Your task to perform on an android device: turn off notifications in google photos Image 0: 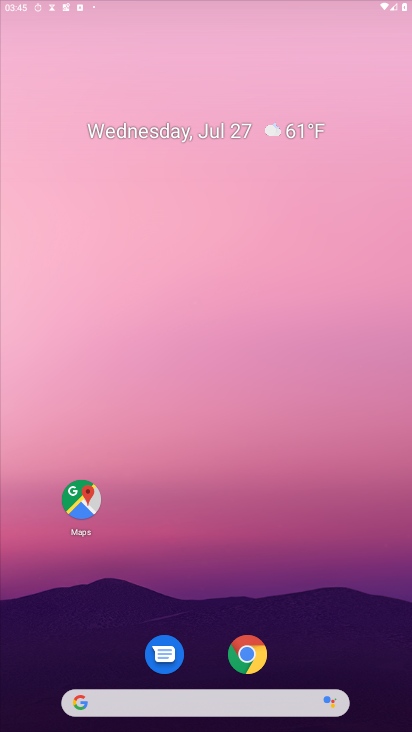
Step 0: drag from (265, 705) to (282, 183)
Your task to perform on an android device: turn off notifications in google photos Image 1: 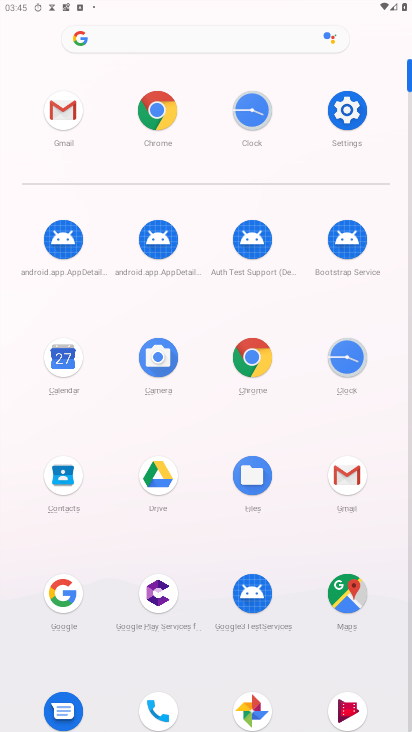
Step 1: drag from (273, 622) to (261, 262)
Your task to perform on an android device: turn off notifications in google photos Image 2: 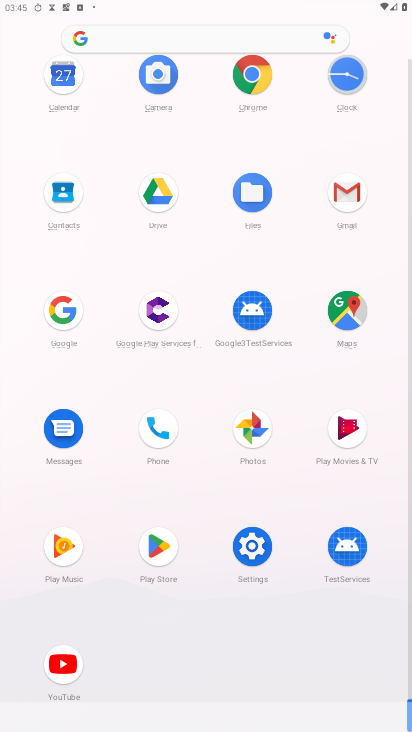
Step 2: click (252, 436)
Your task to perform on an android device: turn off notifications in google photos Image 3: 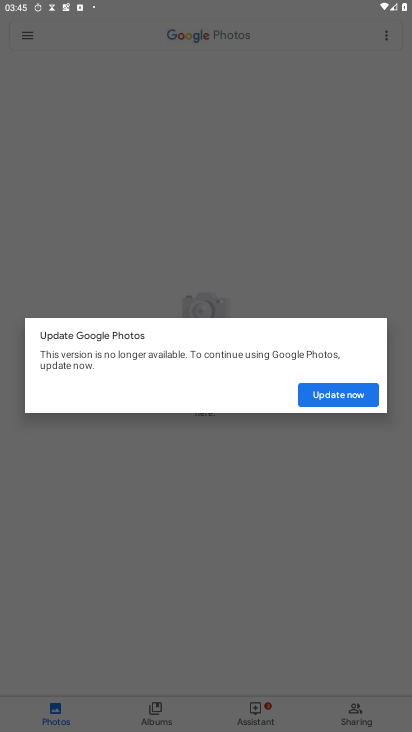
Step 3: click (347, 392)
Your task to perform on an android device: turn off notifications in google photos Image 4: 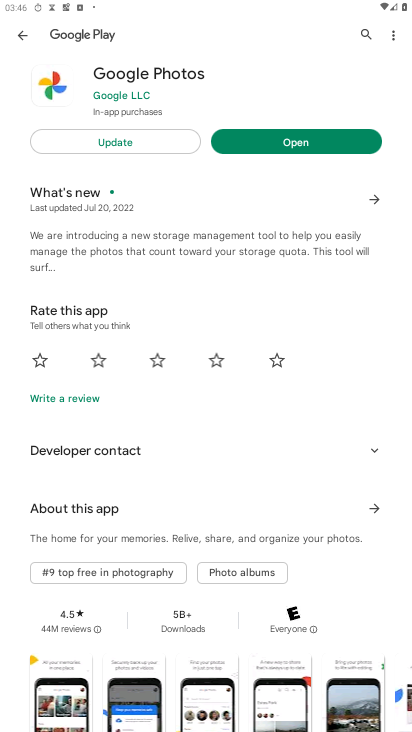
Step 4: click (145, 145)
Your task to perform on an android device: turn off notifications in google photos Image 5: 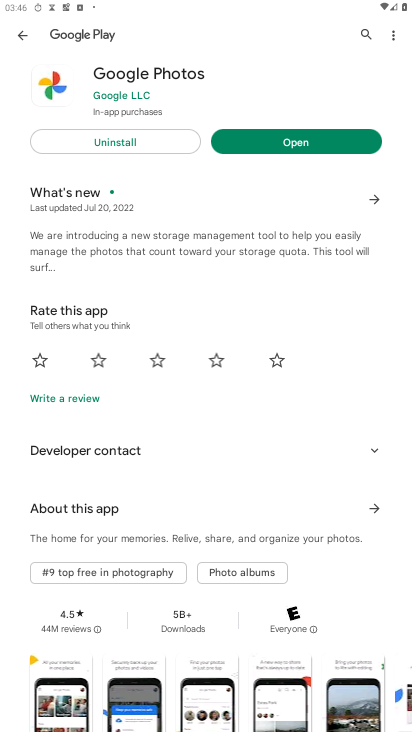
Step 5: click (346, 140)
Your task to perform on an android device: turn off notifications in google photos Image 6: 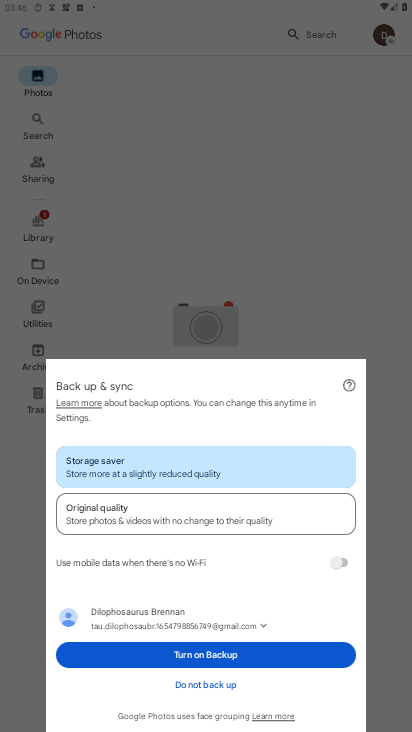
Step 6: click (175, 651)
Your task to perform on an android device: turn off notifications in google photos Image 7: 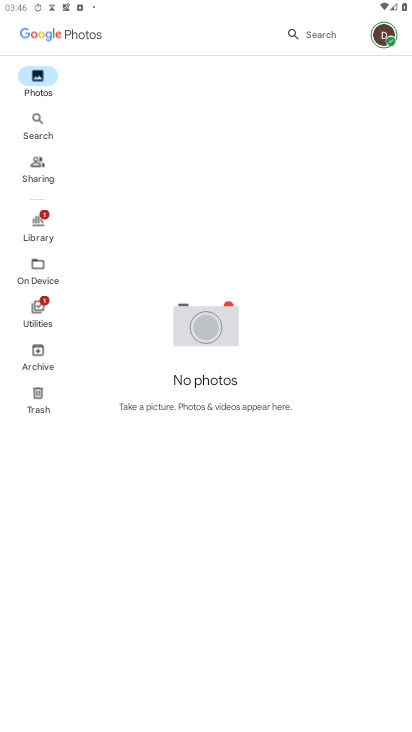
Step 7: click (384, 38)
Your task to perform on an android device: turn off notifications in google photos Image 8: 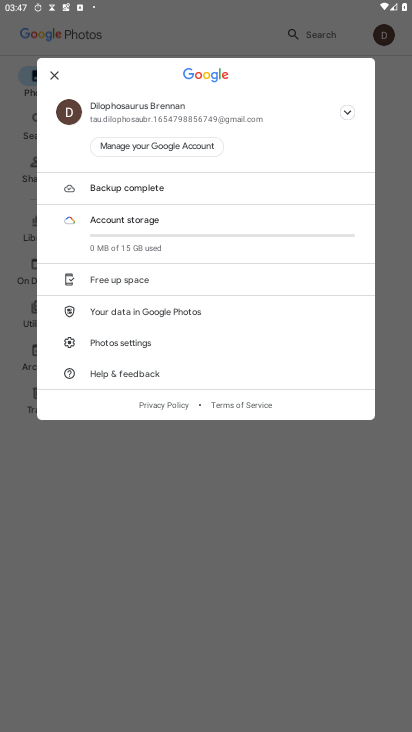
Step 8: click (113, 344)
Your task to perform on an android device: turn off notifications in google photos Image 9: 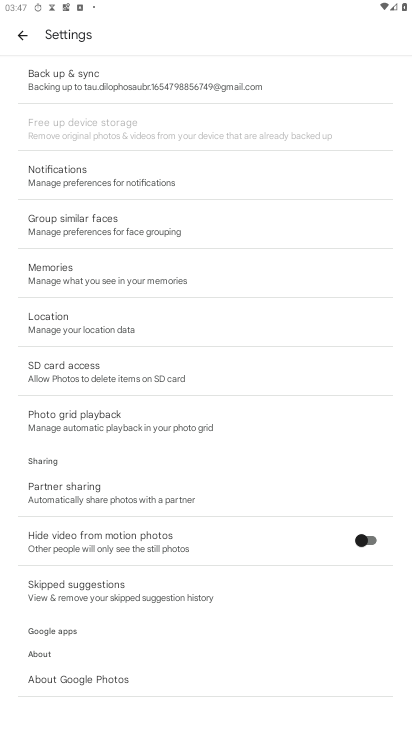
Step 9: click (102, 173)
Your task to perform on an android device: turn off notifications in google photos Image 10: 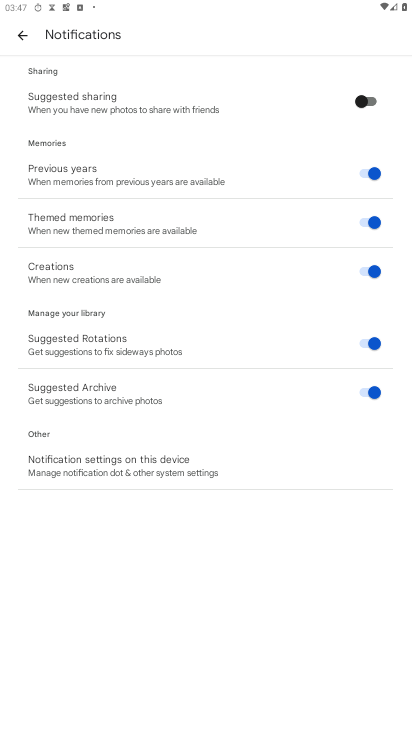
Step 10: task complete